Your task to perform on an android device: Go to Reddit.com Image 0: 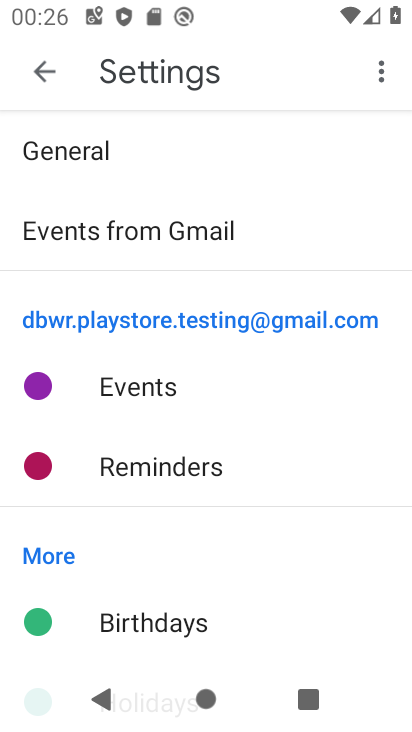
Step 0: drag from (165, 474) to (236, 183)
Your task to perform on an android device: Go to Reddit.com Image 1: 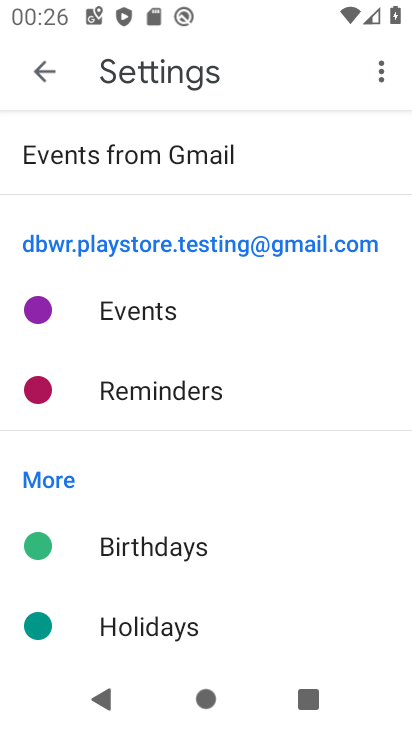
Step 1: press home button
Your task to perform on an android device: Go to Reddit.com Image 2: 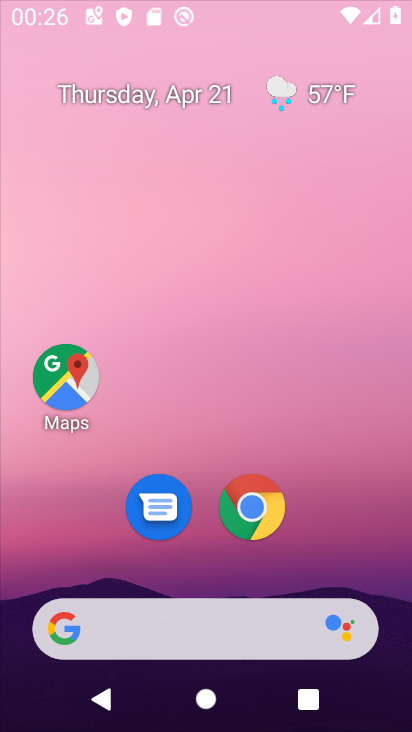
Step 2: drag from (130, 626) to (222, 217)
Your task to perform on an android device: Go to Reddit.com Image 3: 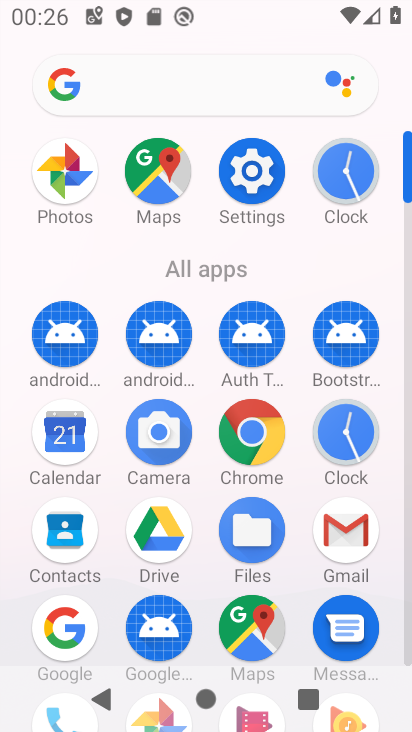
Step 3: click (252, 427)
Your task to perform on an android device: Go to Reddit.com Image 4: 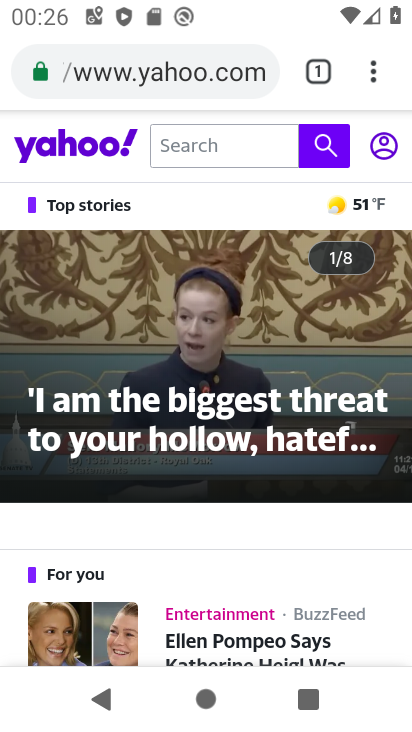
Step 4: click (211, 74)
Your task to perform on an android device: Go to Reddit.com Image 5: 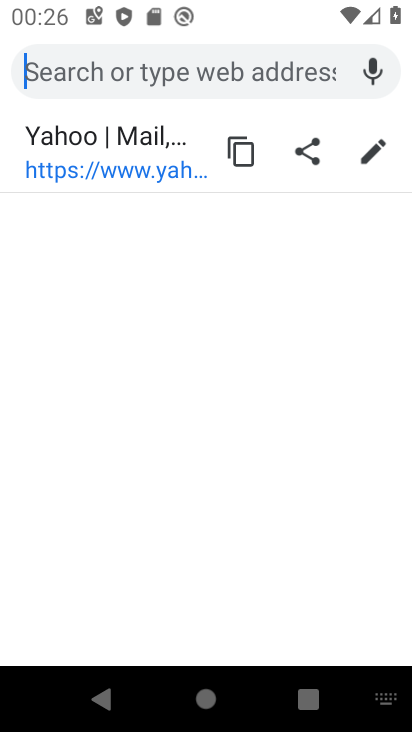
Step 5: click (93, 81)
Your task to perform on an android device: Go to Reddit.com Image 6: 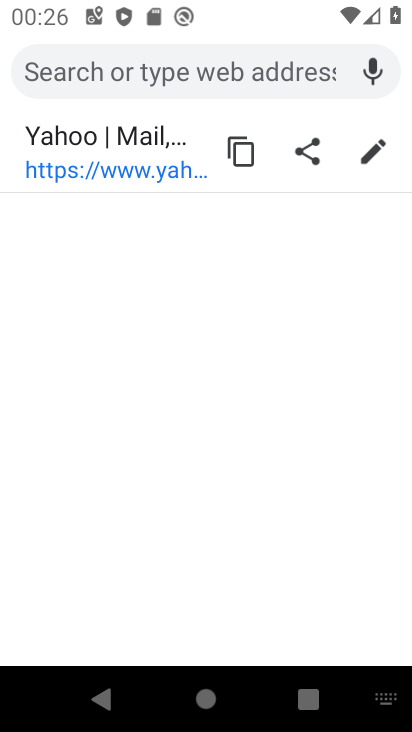
Step 6: type "reddit.com"
Your task to perform on an android device: Go to Reddit.com Image 7: 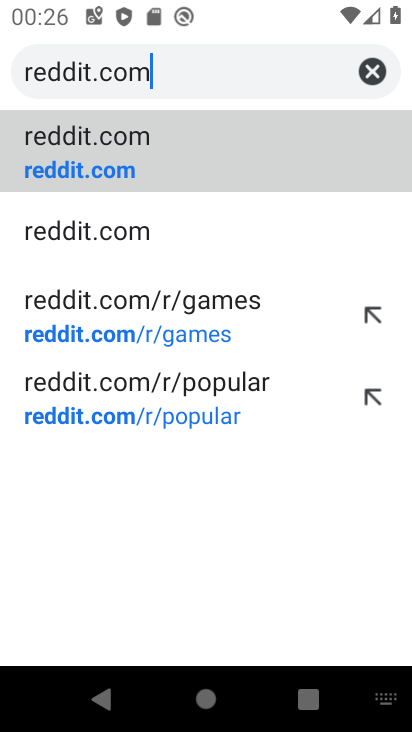
Step 7: click (146, 151)
Your task to perform on an android device: Go to Reddit.com Image 8: 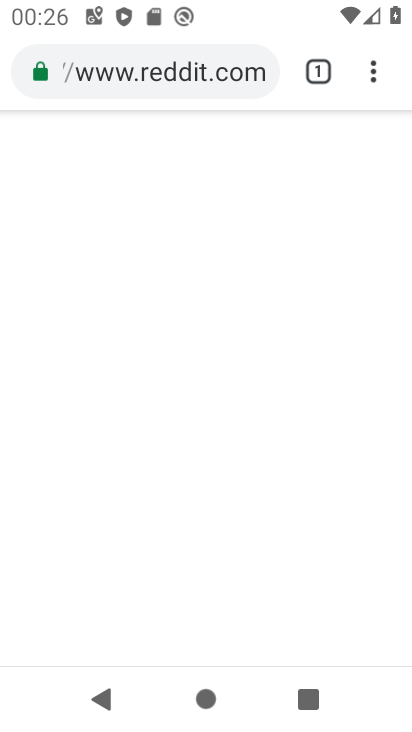
Step 8: task complete